Your task to perform on an android device: Go to Google maps Image 0: 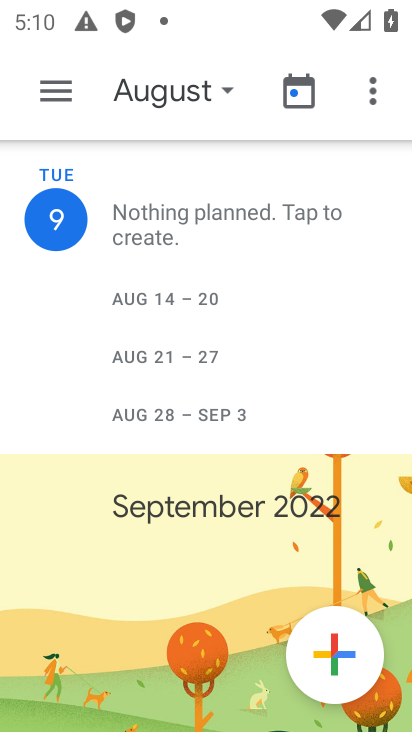
Step 0: press home button
Your task to perform on an android device: Go to Google maps Image 1: 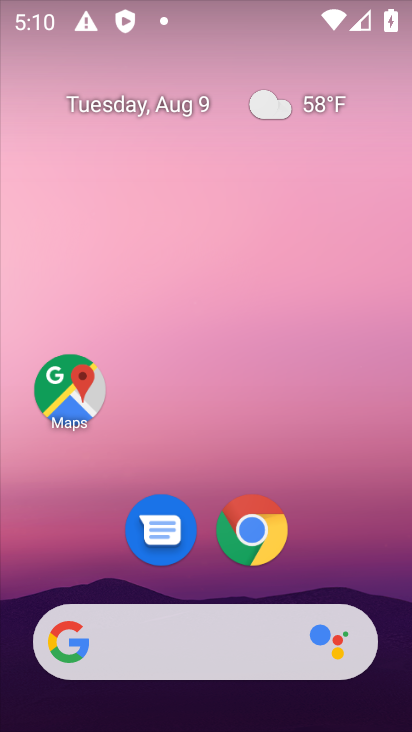
Step 1: click (68, 388)
Your task to perform on an android device: Go to Google maps Image 2: 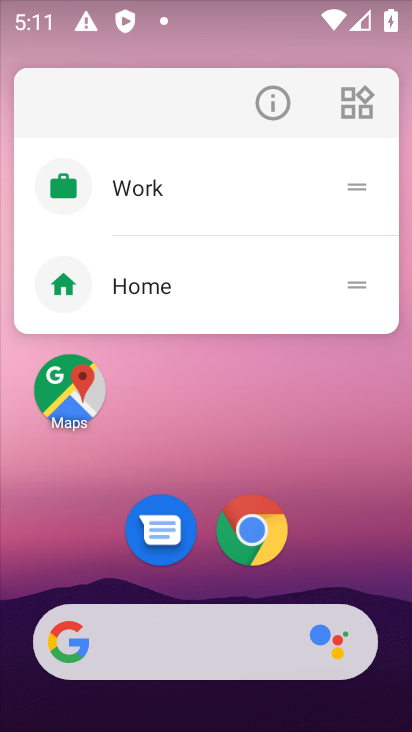
Step 2: click (68, 388)
Your task to perform on an android device: Go to Google maps Image 3: 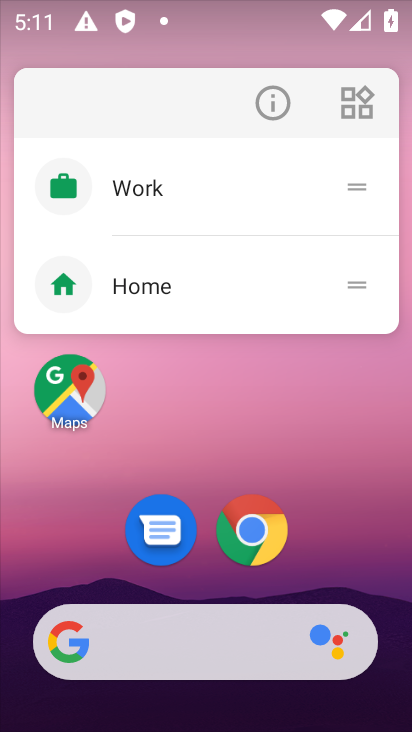
Step 3: click (68, 388)
Your task to perform on an android device: Go to Google maps Image 4: 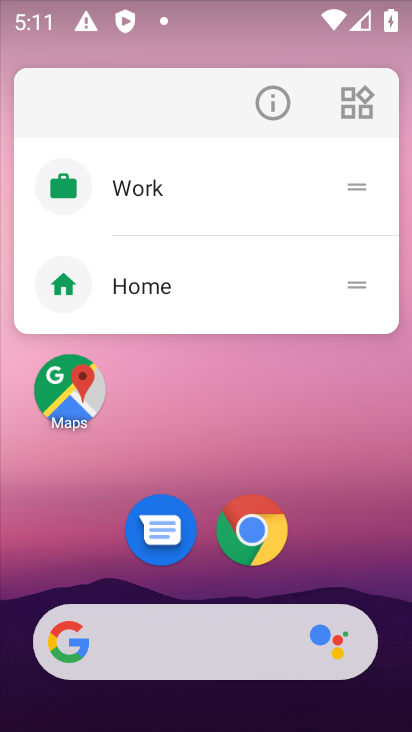
Step 4: click (58, 437)
Your task to perform on an android device: Go to Google maps Image 5: 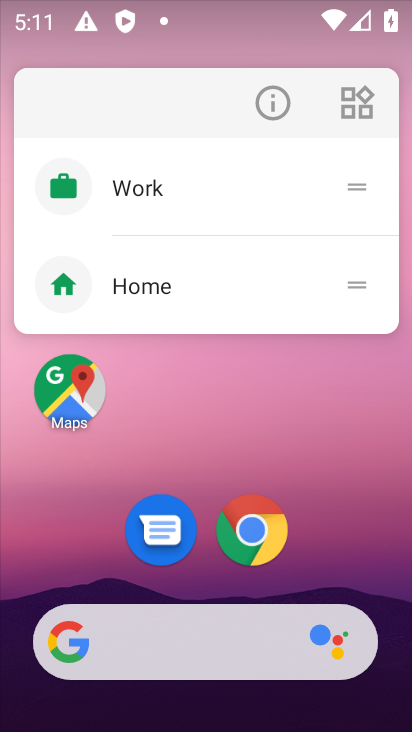
Step 5: click (81, 409)
Your task to perform on an android device: Go to Google maps Image 6: 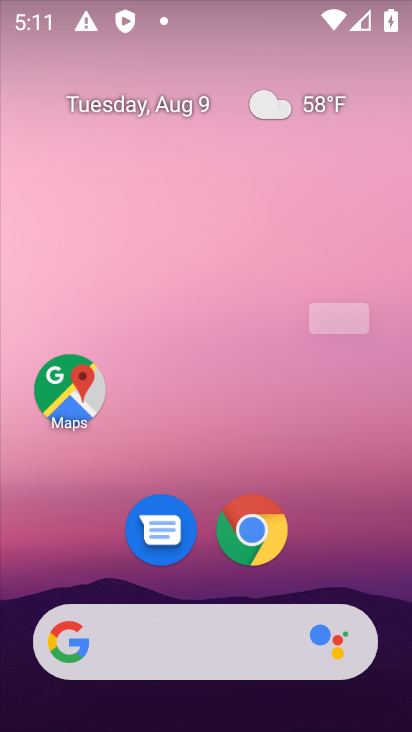
Step 6: click (81, 407)
Your task to perform on an android device: Go to Google maps Image 7: 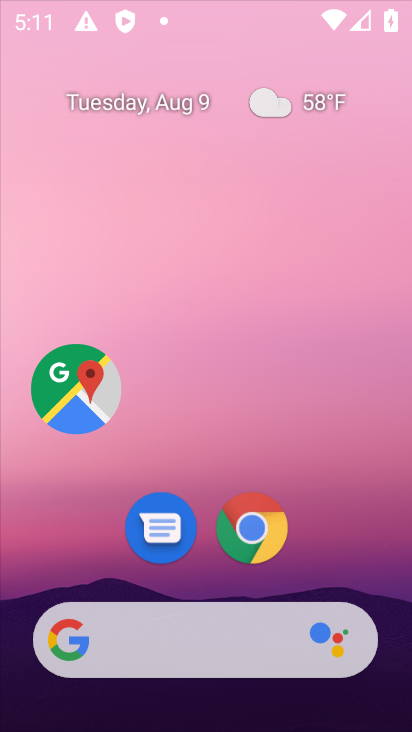
Step 7: click (82, 384)
Your task to perform on an android device: Go to Google maps Image 8: 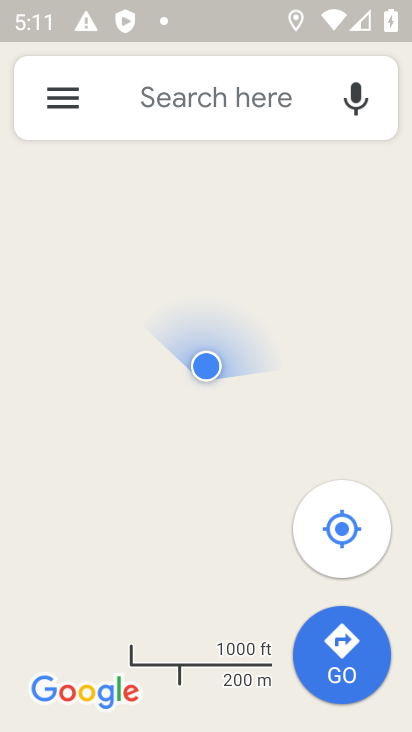
Step 8: task complete